Your task to perform on an android device: Open sound settings Image 0: 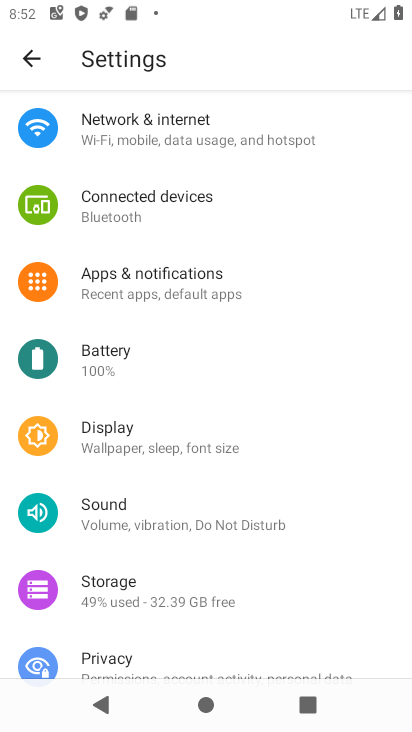
Step 0: click (226, 518)
Your task to perform on an android device: Open sound settings Image 1: 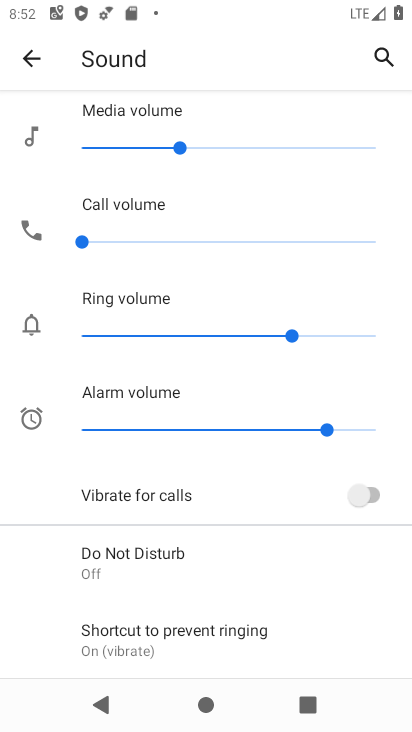
Step 1: task complete